Your task to perform on an android device: see creations saved in the google photos Image 0: 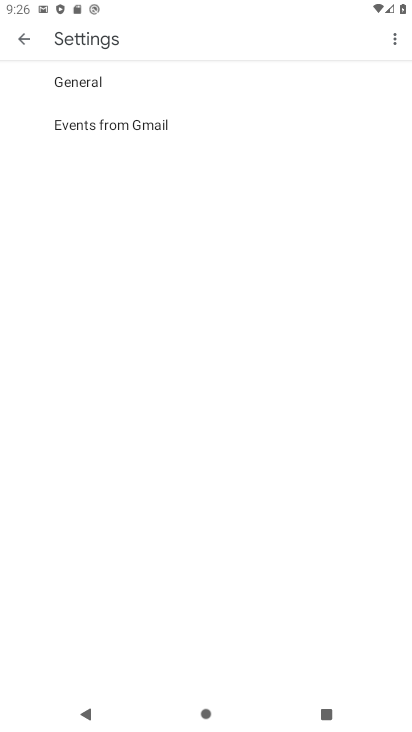
Step 0: press home button
Your task to perform on an android device: see creations saved in the google photos Image 1: 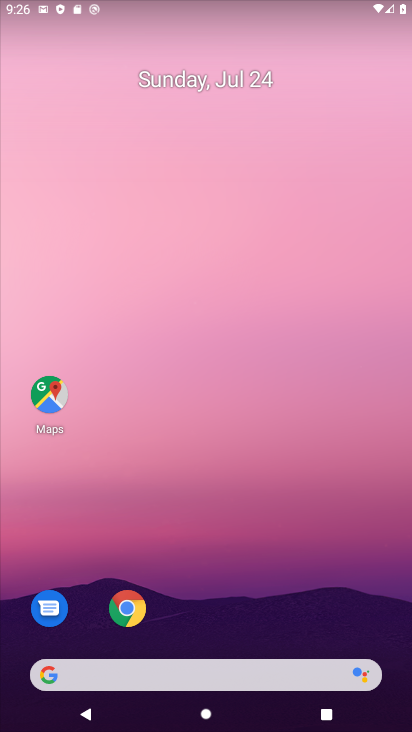
Step 1: drag from (204, 640) to (200, 21)
Your task to perform on an android device: see creations saved in the google photos Image 2: 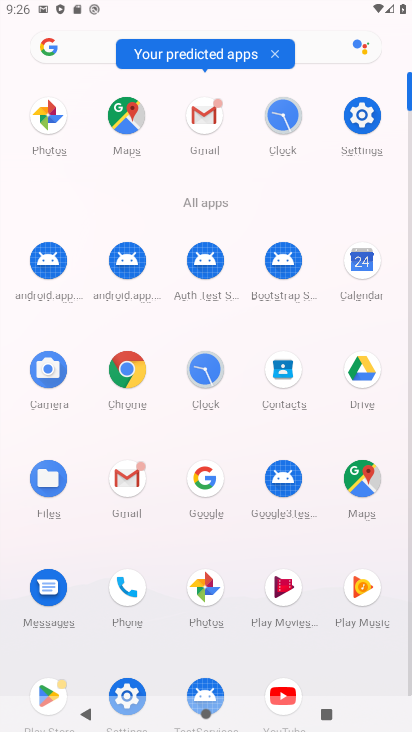
Step 2: click (202, 579)
Your task to perform on an android device: see creations saved in the google photos Image 3: 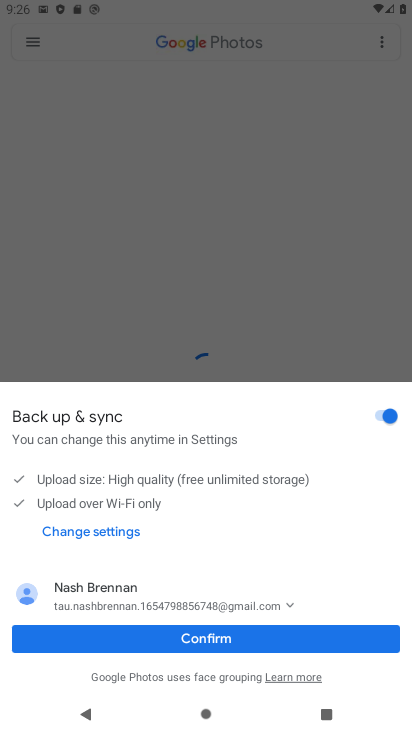
Step 3: click (213, 638)
Your task to perform on an android device: see creations saved in the google photos Image 4: 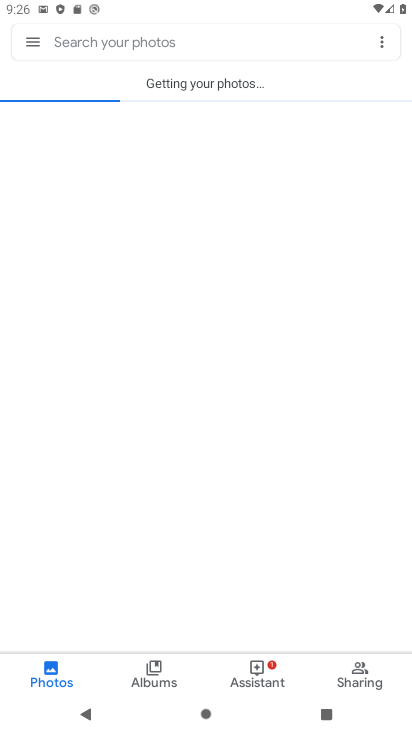
Step 4: click (31, 38)
Your task to perform on an android device: see creations saved in the google photos Image 5: 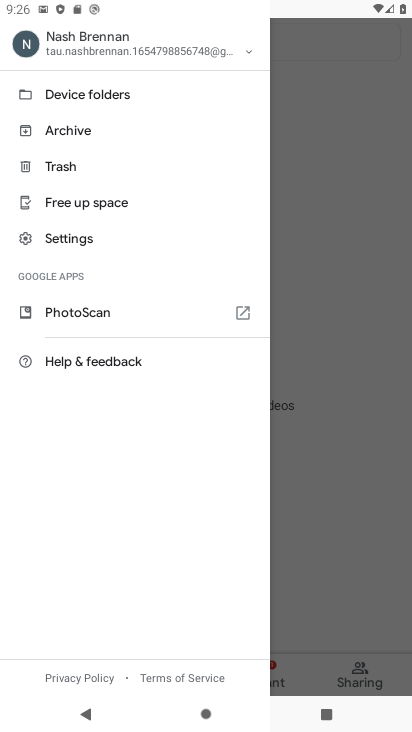
Step 5: click (101, 235)
Your task to perform on an android device: see creations saved in the google photos Image 6: 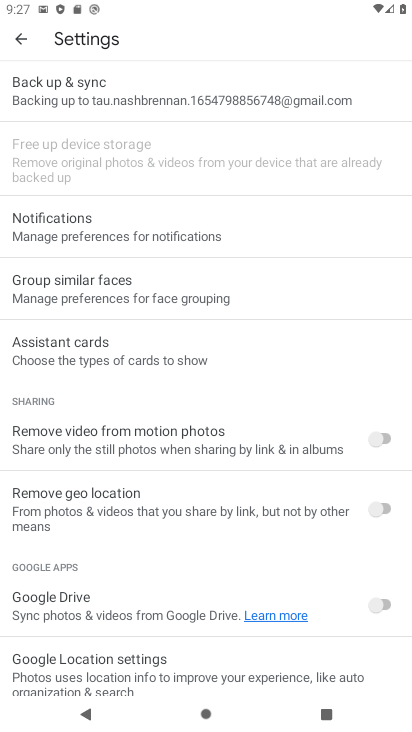
Step 6: click (28, 37)
Your task to perform on an android device: see creations saved in the google photos Image 7: 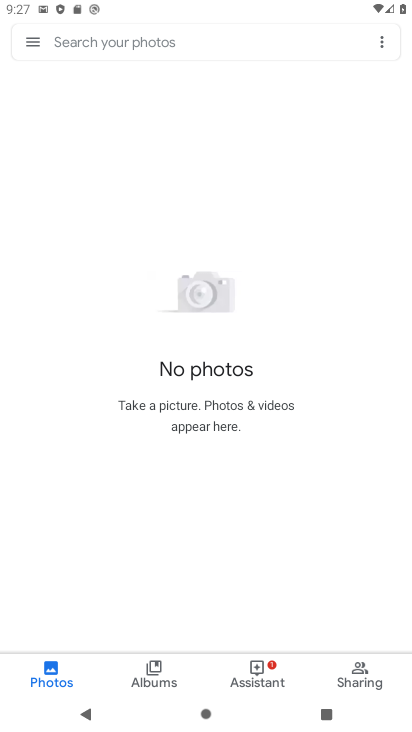
Step 7: click (113, 34)
Your task to perform on an android device: see creations saved in the google photos Image 8: 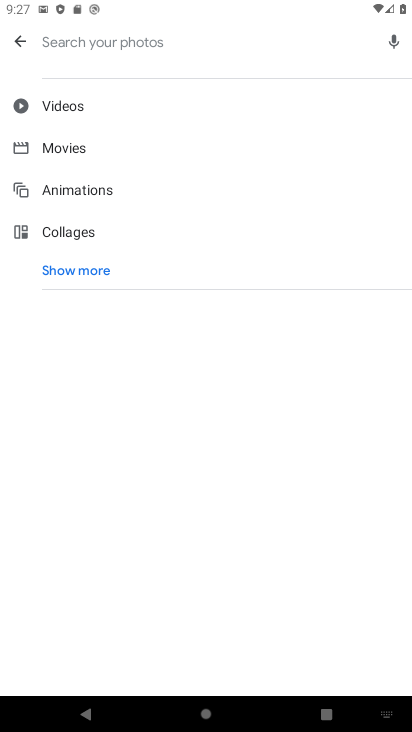
Step 8: click (83, 265)
Your task to perform on an android device: see creations saved in the google photos Image 9: 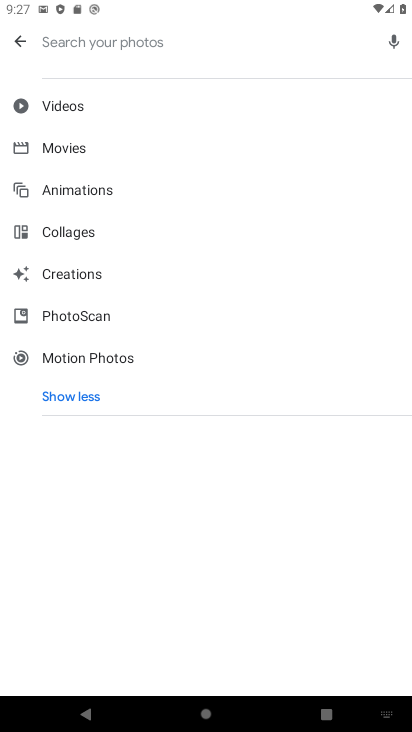
Step 9: click (102, 271)
Your task to perform on an android device: see creations saved in the google photos Image 10: 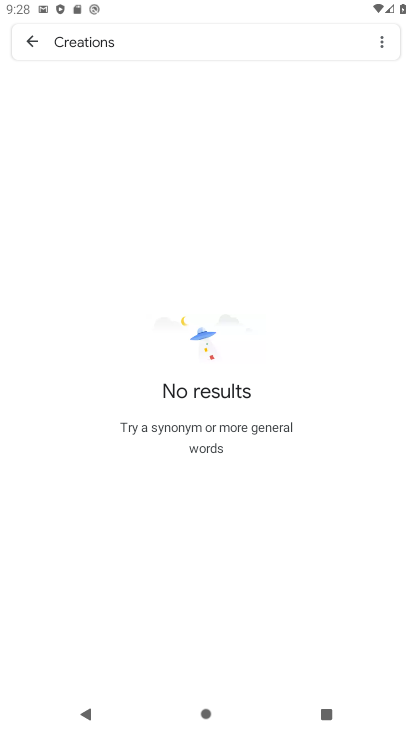
Step 10: task complete